Your task to perform on an android device: check out phone information Image 0: 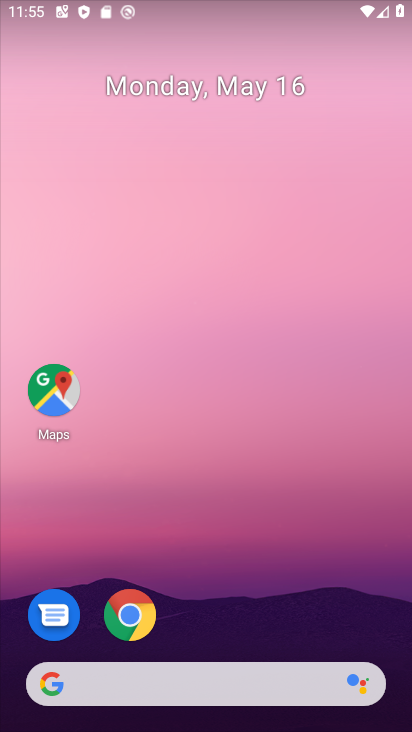
Step 0: drag from (173, 650) to (194, 212)
Your task to perform on an android device: check out phone information Image 1: 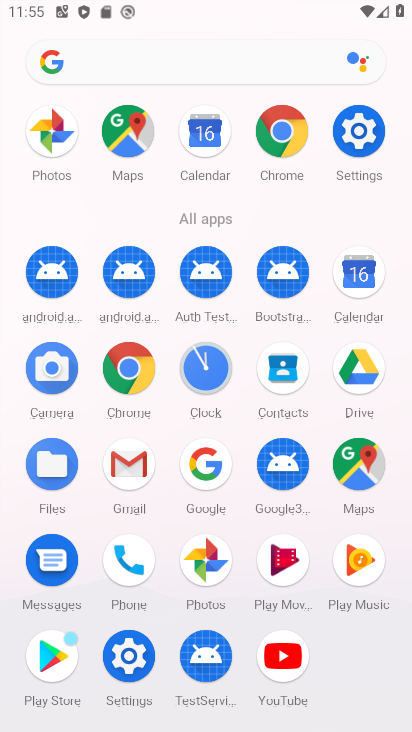
Step 1: click (127, 559)
Your task to perform on an android device: check out phone information Image 2: 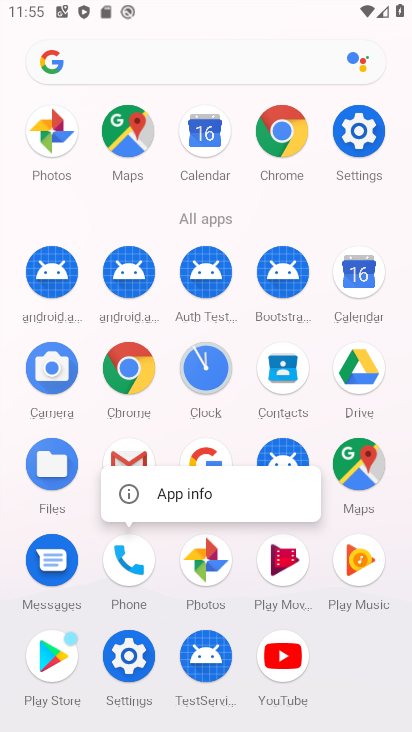
Step 2: click (177, 491)
Your task to perform on an android device: check out phone information Image 3: 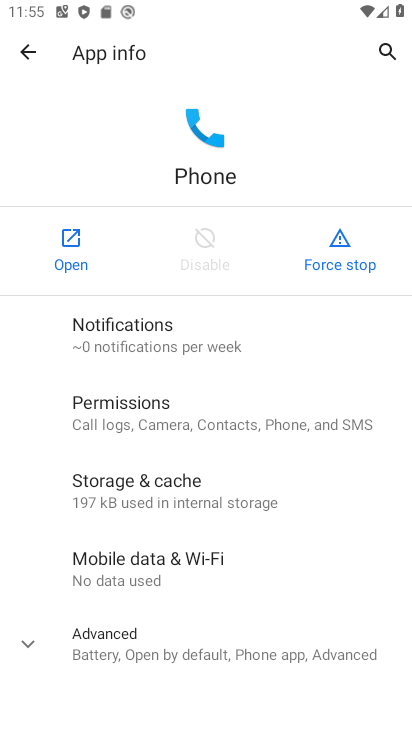
Step 3: drag from (169, 508) to (174, 302)
Your task to perform on an android device: check out phone information Image 4: 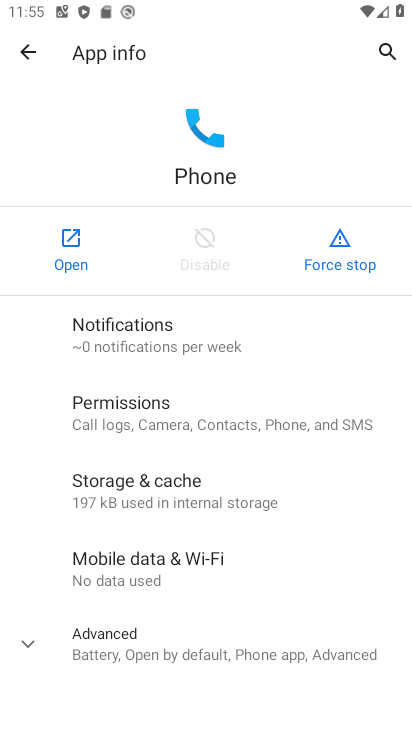
Step 4: click (149, 649)
Your task to perform on an android device: check out phone information Image 5: 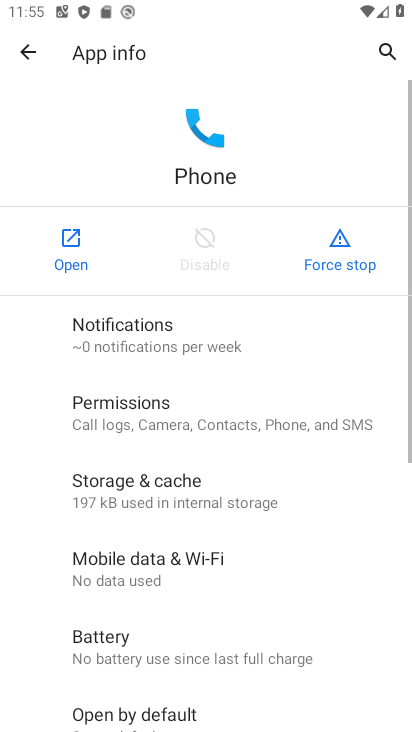
Step 5: task complete